Your task to perform on an android device: Go to battery settings Image 0: 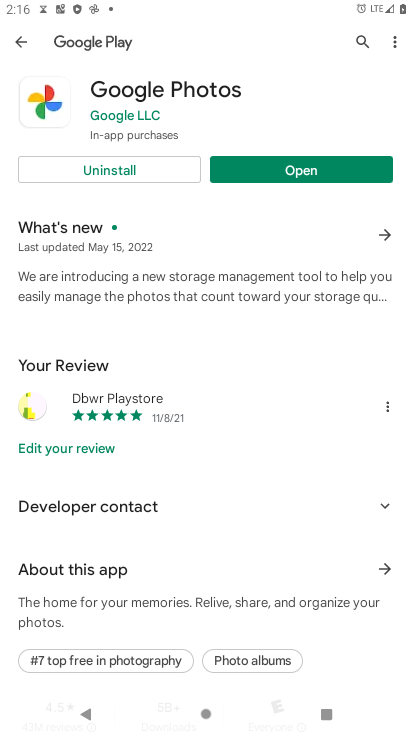
Step 0: press home button
Your task to perform on an android device: Go to battery settings Image 1: 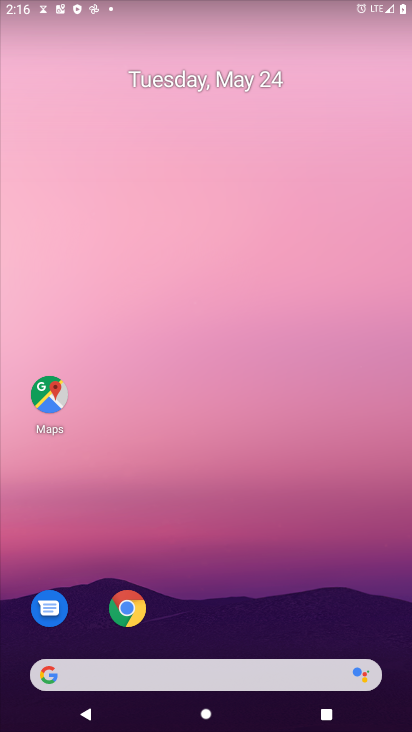
Step 1: drag from (268, 698) to (240, 103)
Your task to perform on an android device: Go to battery settings Image 2: 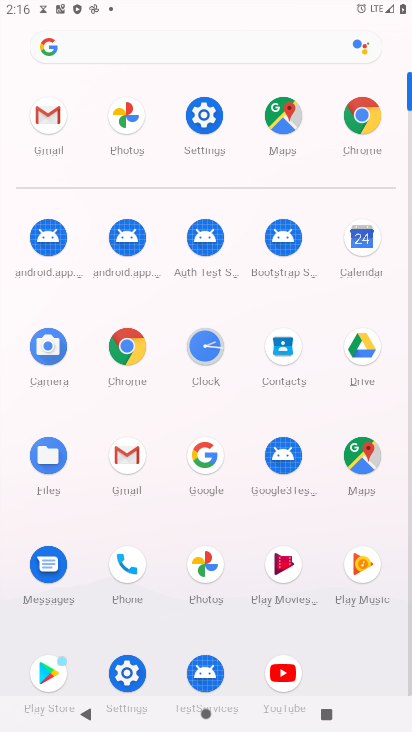
Step 2: click (189, 134)
Your task to perform on an android device: Go to battery settings Image 3: 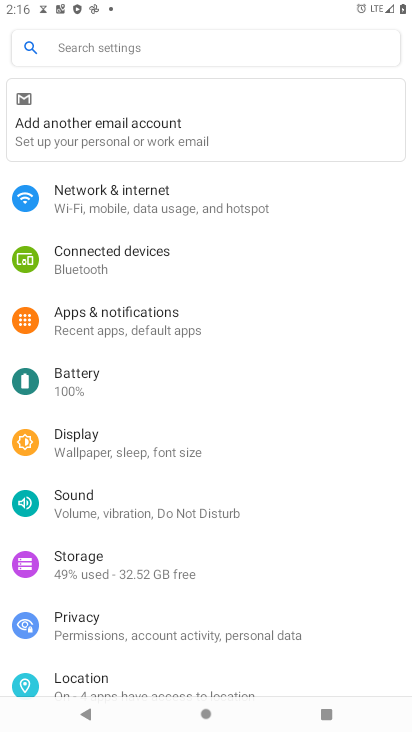
Step 3: click (112, 377)
Your task to perform on an android device: Go to battery settings Image 4: 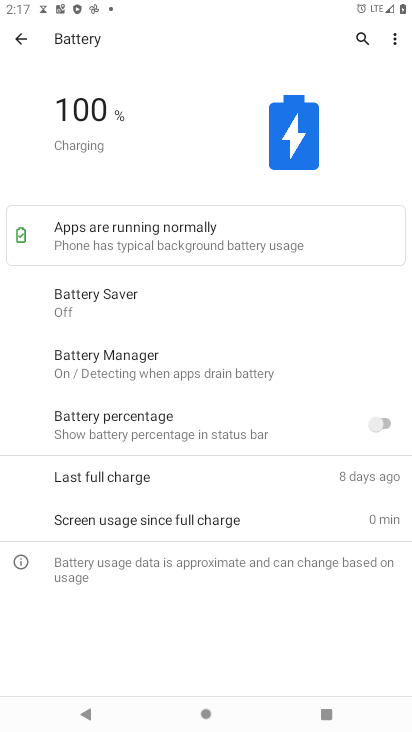
Step 4: task complete